Your task to perform on an android device: change the upload size in google photos Image 0: 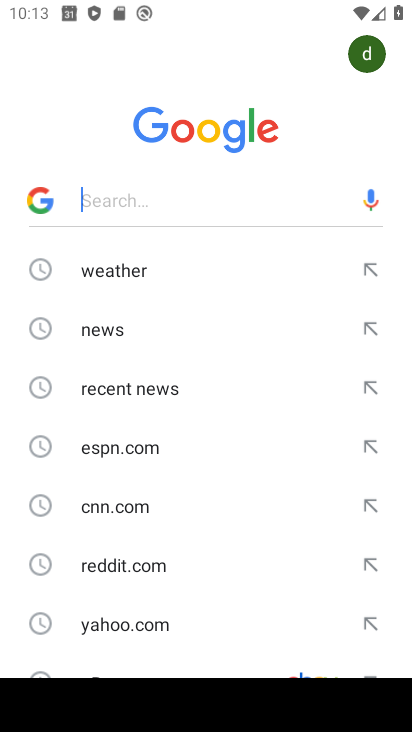
Step 0: press home button
Your task to perform on an android device: change the upload size in google photos Image 1: 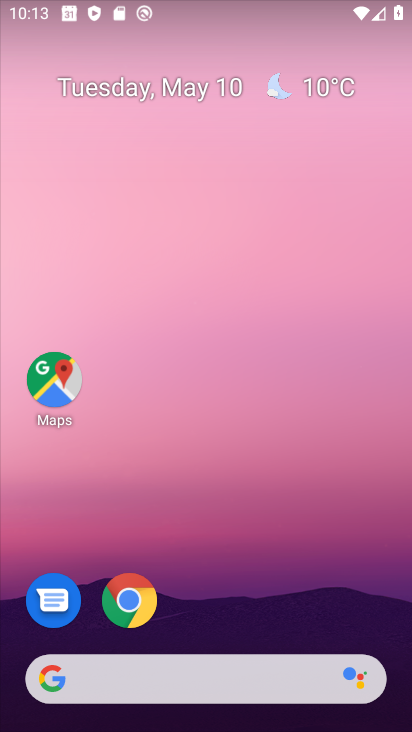
Step 1: drag from (325, 573) to (336, 188)
Your task to perform on an android device: change the upload size in google photos Image 2: 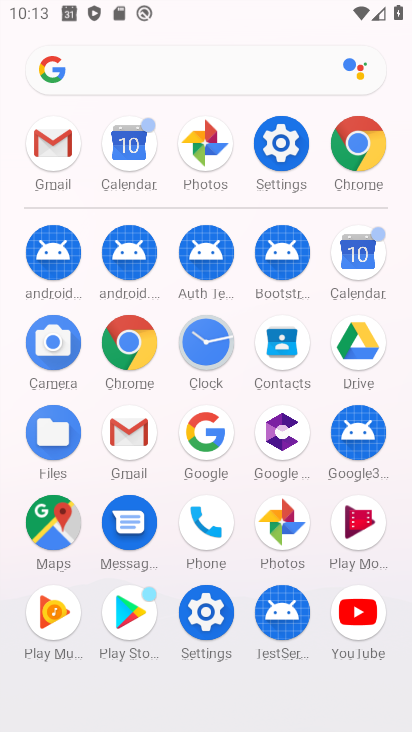
Step 2: click (215, 156)
Your task to perform on an android device: change the upload size in google photos Image 3: 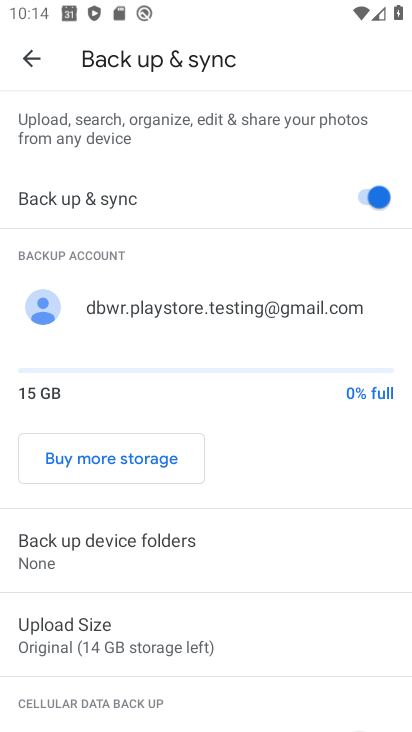
Step 3: click (149, 629)
Your task to perform on an android device: change the upload size in google photos Image 4: 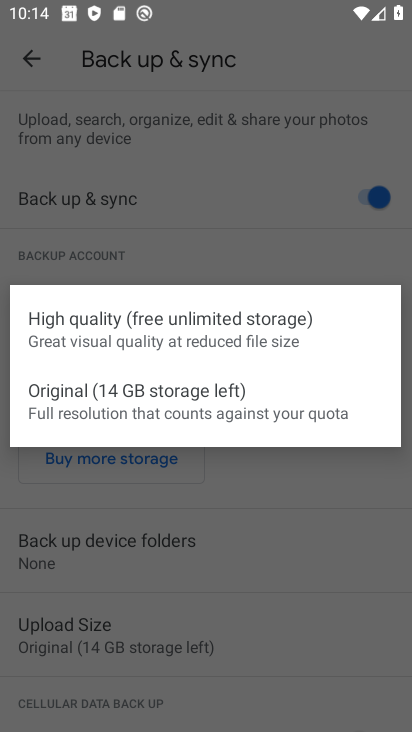
Step 4: click (255, 525)
Your task to perform on an android device: change the upload size in google photos Image 5: 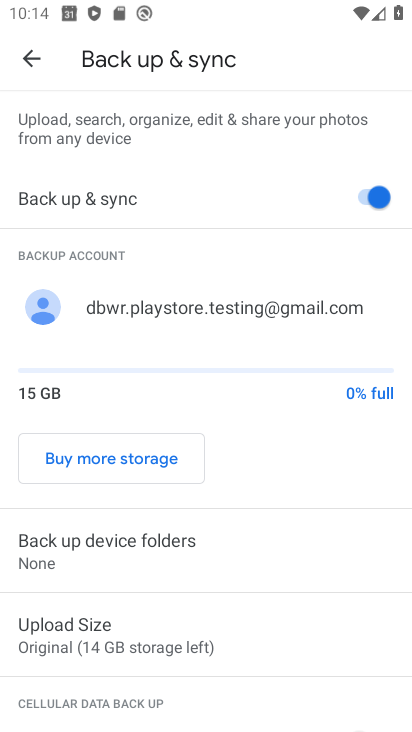
Step 5: click (107, 622)
Your task to perform on an android device: change the upload size in google photos Image 6: 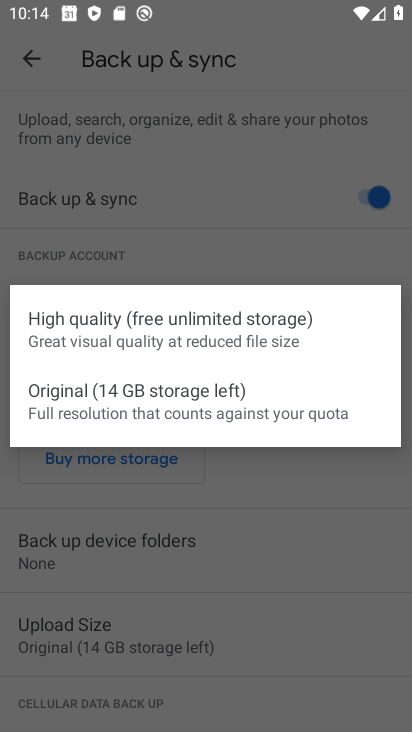
Step 6: click (66, 343)
Your task to perform on an android device: change the upload size in google photos Image 7: 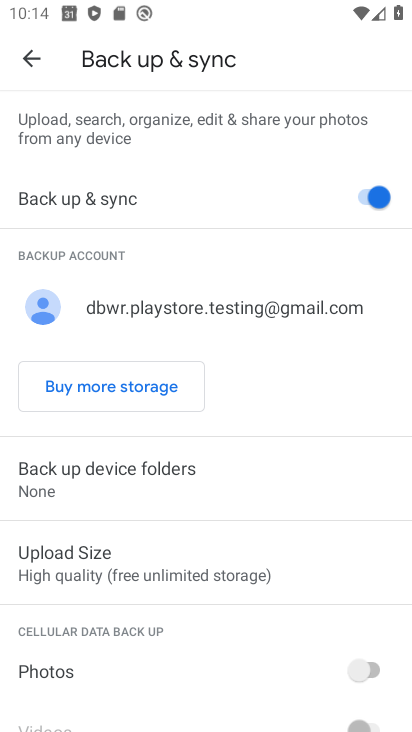
Step 7: task complete